Your task to perform on an android device: turn off location Image 0: 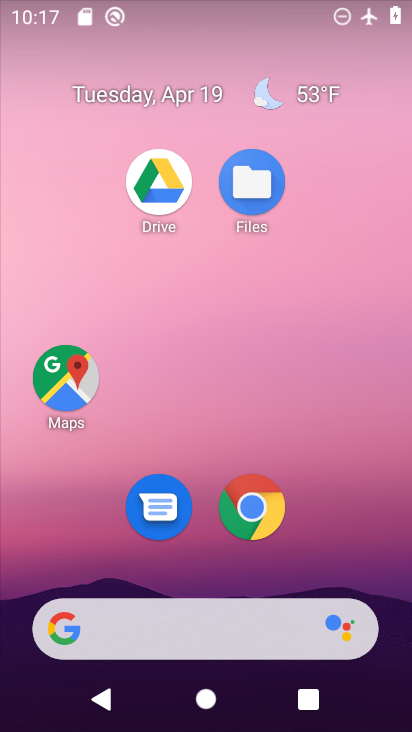
Step 0: drag from (362, 514) to (334, 110)
Your task to perform on an android device: turn off location Image 1: 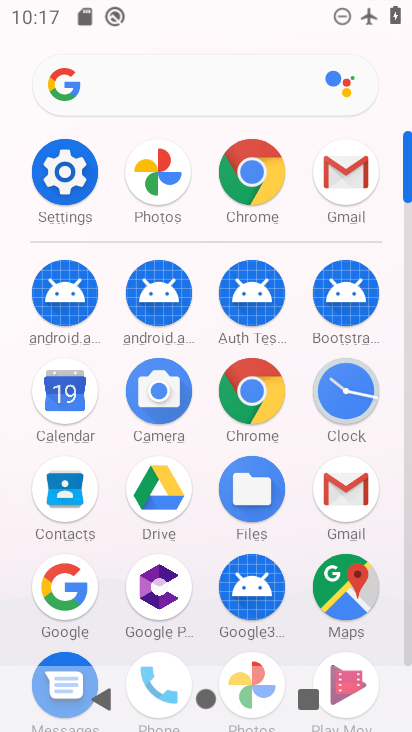
Step 1: click (57, 174)
Your task to perform on an android device: turn off location Image 2: 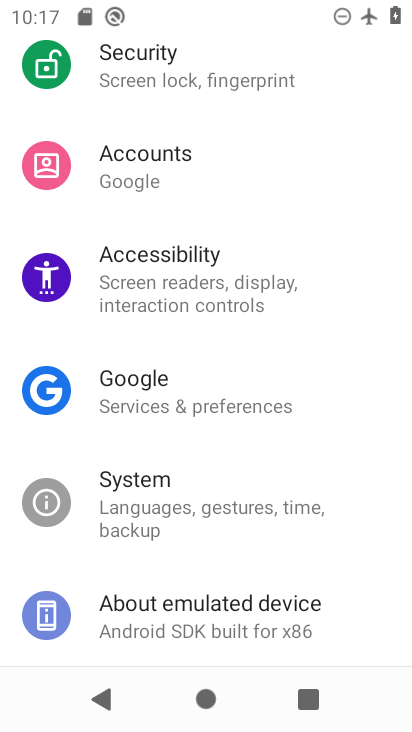
Step 2: drag from (250, 143) to (279, 642)
Your task to perform on an android device: turn off location Image 3: 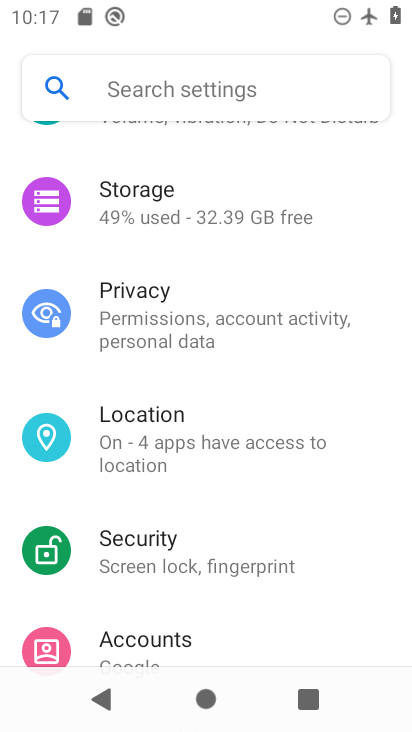
Step 3: click (231, 435)
Your task to perform on an android device: turn off location Image 4: 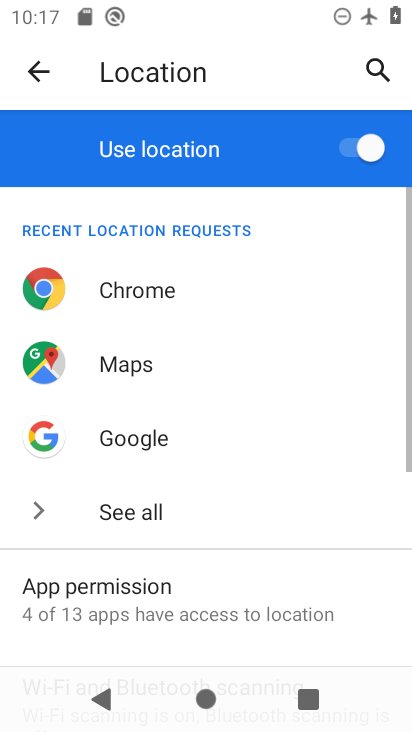
Step 4: click (342, 142)
Your task to perform on an android device: turn off location Image 5: 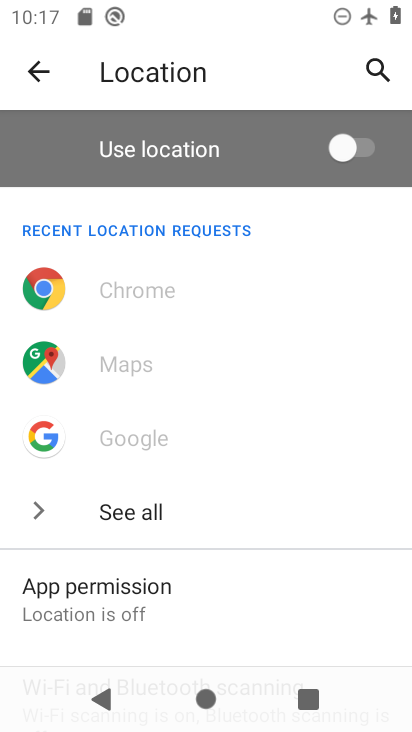
Step 5: task complete